Your task to perform on an android device: Open Wikipedia Image 0: 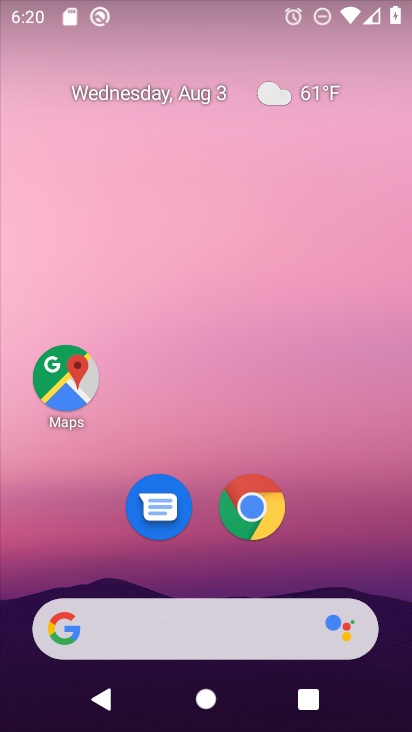
Step 0: drag from (365, 456) to (374, 38)
Your task to perform on an android device: Open Wikipedia Image 1: 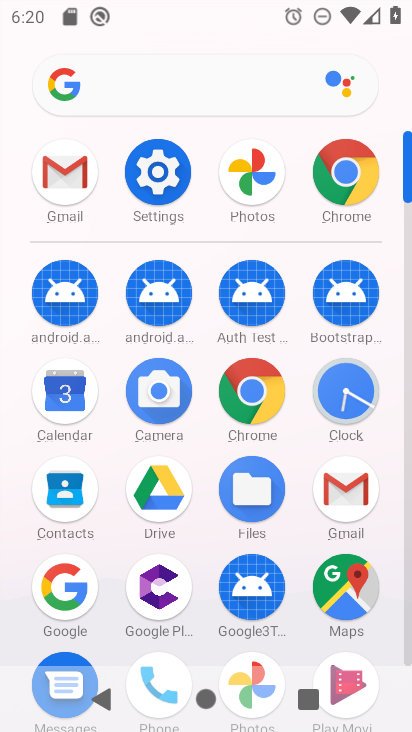
Step 1: click (342, 174)
Your task to perform on an android device: Open Wikipedia Image 2: 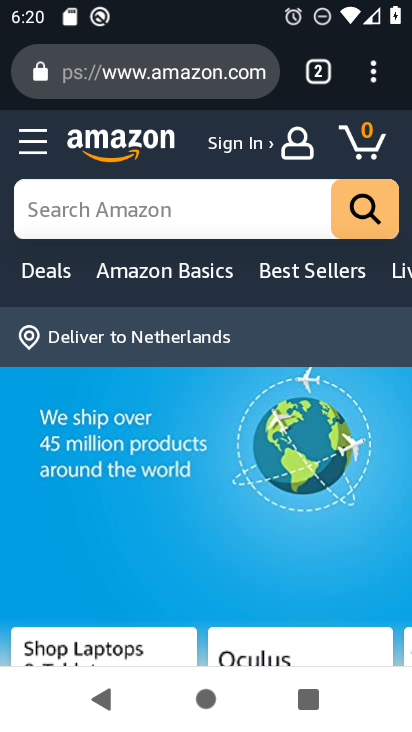
Step 2: click (191, 69)
Your task to perform on an android device: Open Wikipedia Image 3: 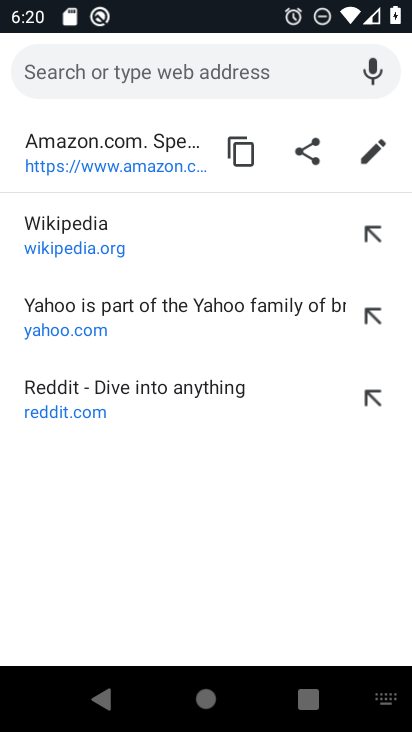
Step 3: click (75, 234)
Your task to perform on an android device: Open Wikipedia Image 4: 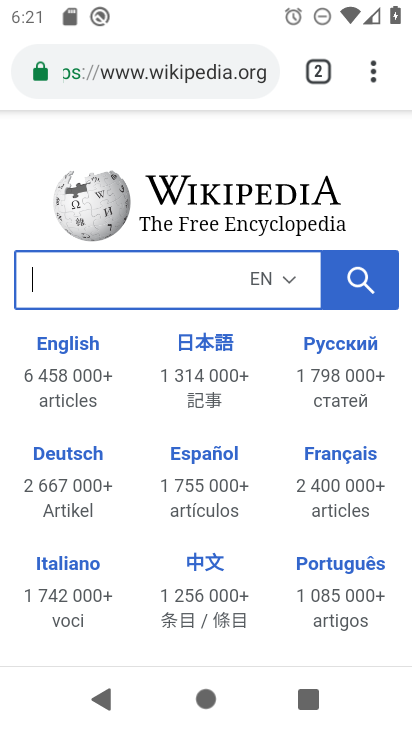
Step 4: task complete